Your task to perform on an android device: Set the phone to "Do not disturb". Image 0: 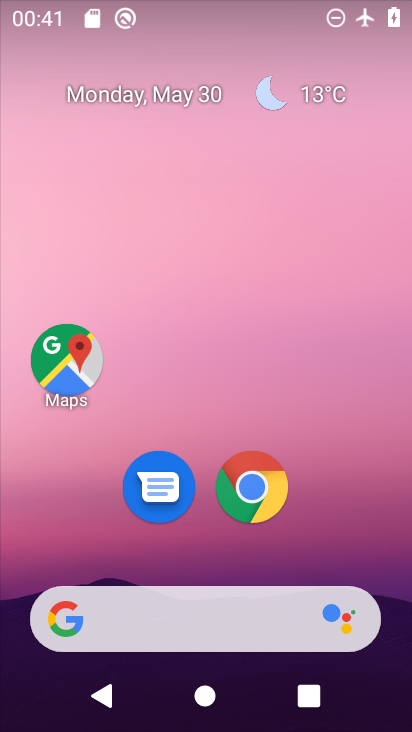
Step 0: drag from (373, 695) to (277, 147)
Your task to perform on an android device: Set the phone to "Do not disturb". Image 1: 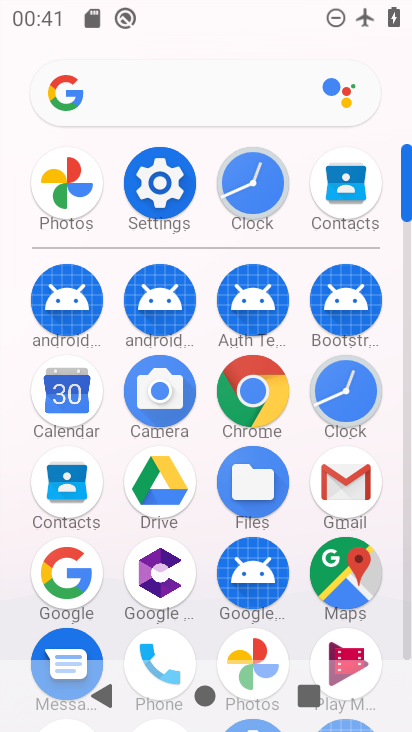
Step 1: click (162, 181)
Your task to perform on an android device: Set the phone to "Do not disturb". Image 2: 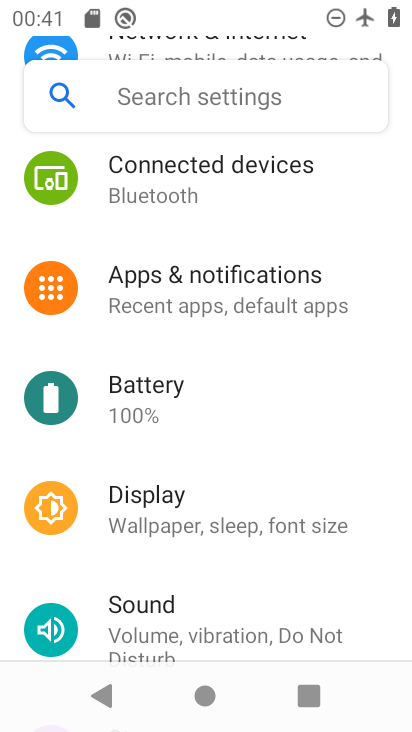
Step 2: drag from (222, 619) to (226, 360)
Your task to perform on an android device: Set the phone to "Do not disturb". Image 3: 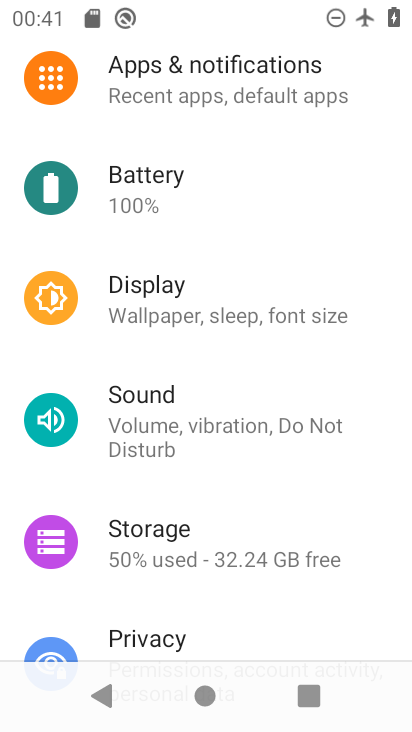
Step 3: click (137, 444)
Your task to perform on an android device: Set the phone to "Do not disturb". Image 4: 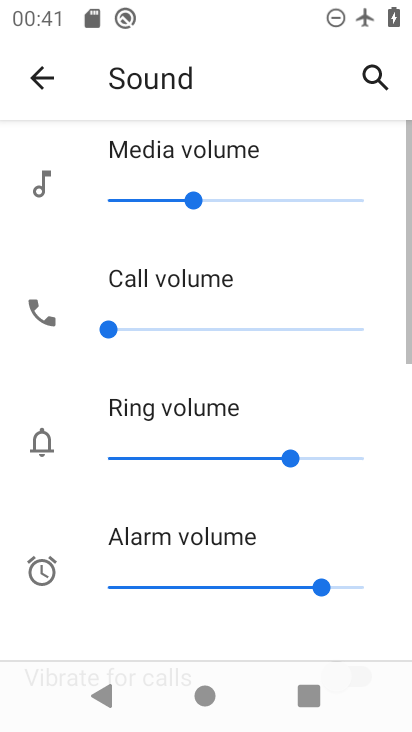
Step 4: task complete